Your task to perform on an android device: Open the calendar and show me this week's events? Image 0: 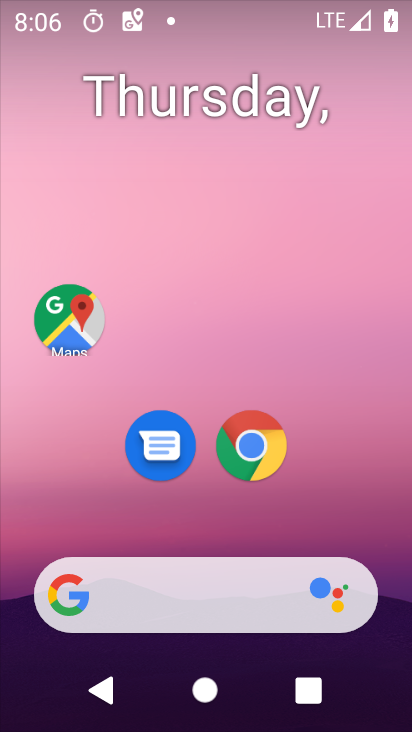
Step 0: drag from (225, 421) to (264, 110)
Your task to perform on an android device: Open the calendar and show me this week's events? Image 1: 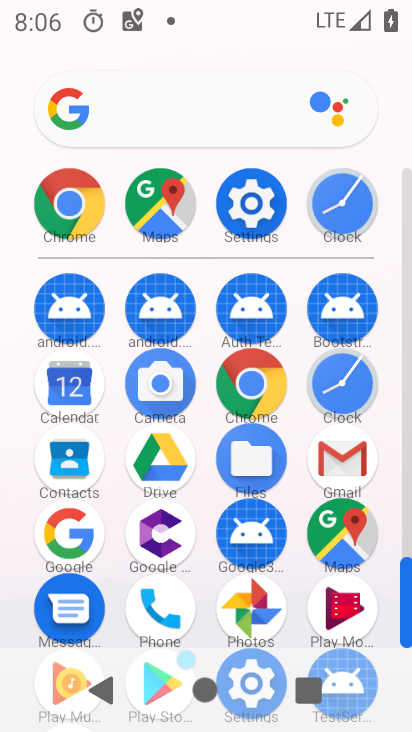
Step 1: click (93, 389)
Your task to perform on an android device: Open the calendar and show me this week's events? Image 2: 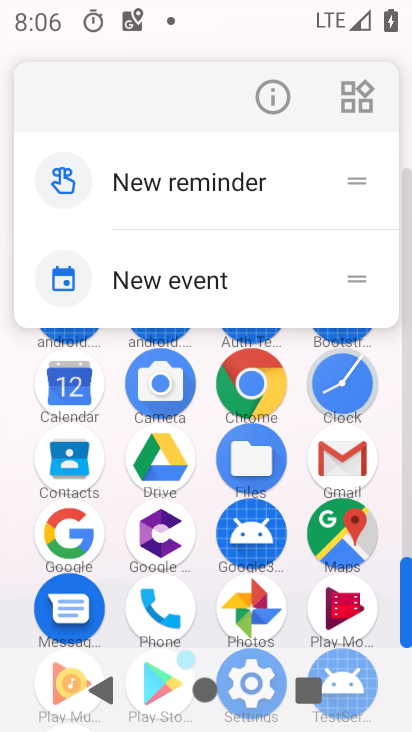
Step 2: click (275, 119)
Your task to perform on an android device: Open the calendar and show me this week's events? Image 3: 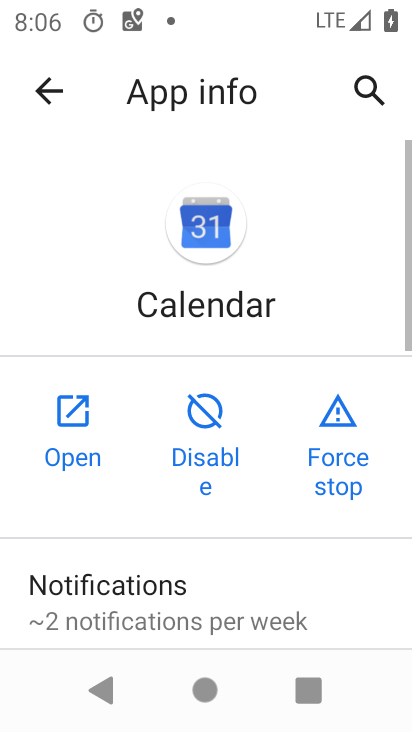
Step 3: click (65, 433)
Your task to perform on an android device: Open the calendar and show me this week's events? Image 4: 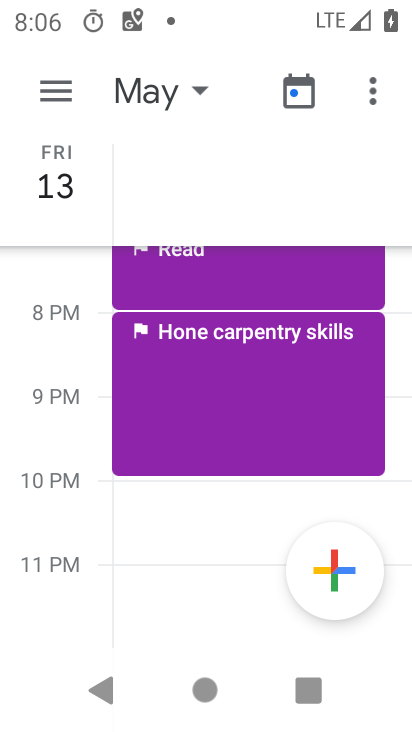
Step 4: click (201, 94)
Your task to perform on an android device: Open the calendar and show me this week's events? Image 5: 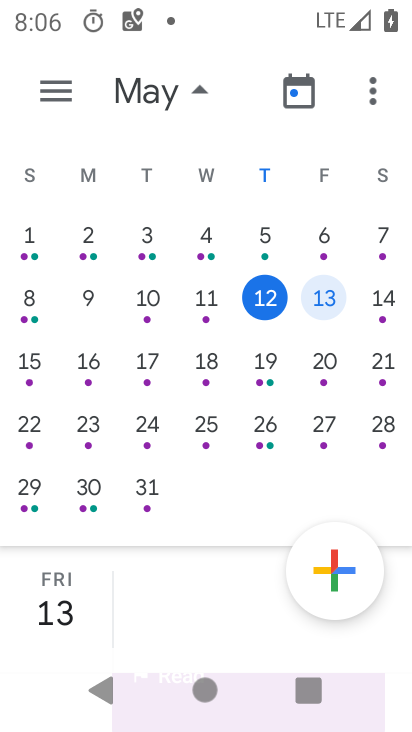
Step 5: click (381, 300)
Your task to perform on an android device: Open the calendar and show me this week's events? Image 6: 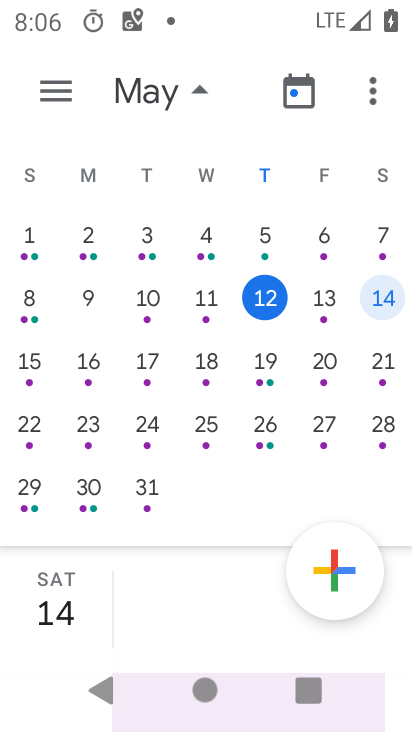
Step 6: task complete